Your task to perform on an android device: Go to network settings Image 0: 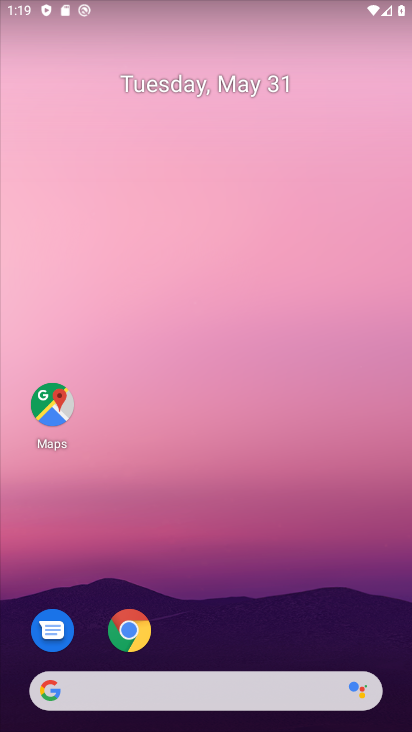
Step 0: drag from (280, 539) to (155, 18)
Your task to perform on an android device: Go to network settings Image 1: 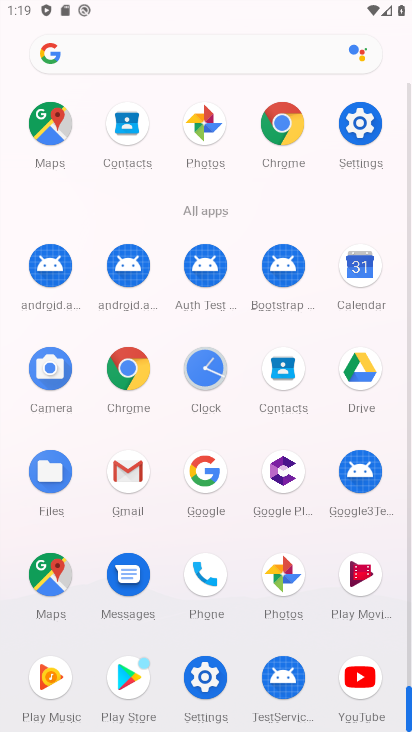
Step 1: drag from (3, 557) to (14, 201)
Your task to perform on an android device: Go to network settings Image 2: 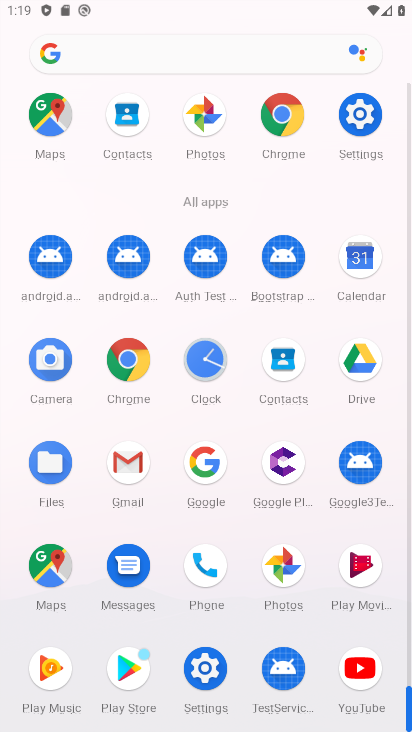
Step 2: click (201, 666)
Your task to perform on an android device: Go to network settings Image 3: 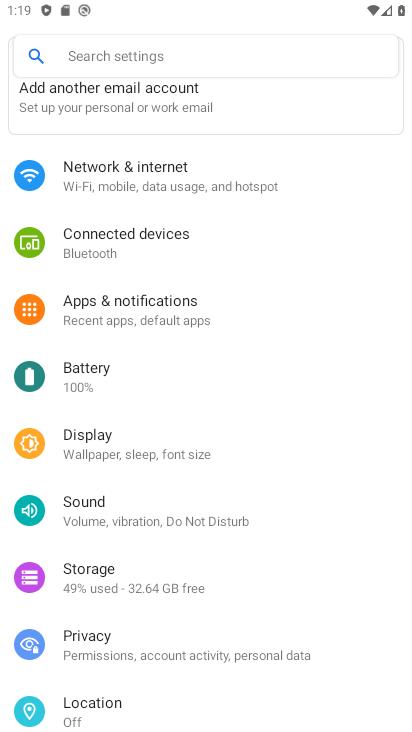
Step 3: drag from (274, 587) to (287, 175)
Your task to perform on an android device: Go to network settings Image 4: 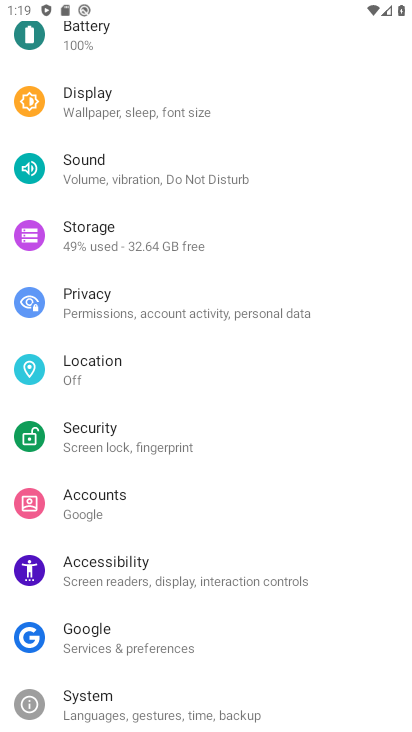
Step 4: drag from (237, 597) to (229, 211)
Your task to perform on an android device: Go to network settings Image 5: 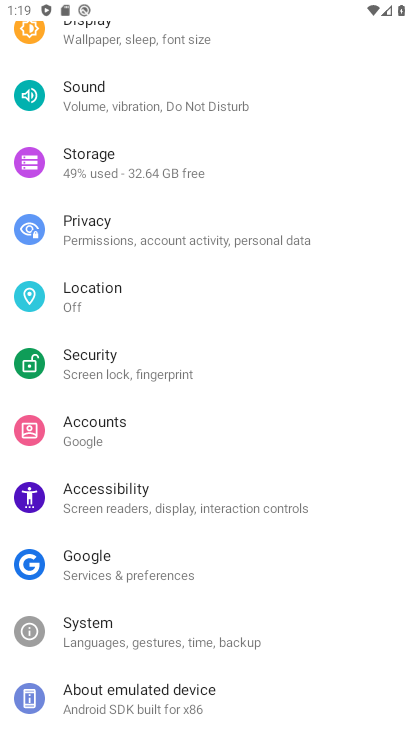
Step 5: drag from (239, 181) to (242, 637)
Your task to perform on an android device: Go to network settings Image 6: 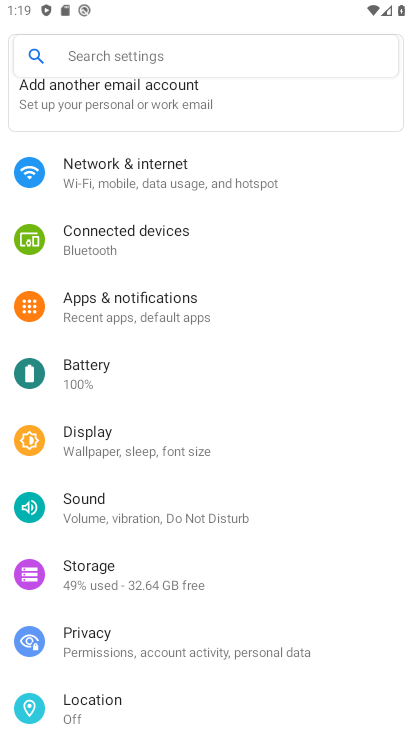
Step 6: click (165, 160)
Your task to perform on an android device: Go to network settings Image 7: 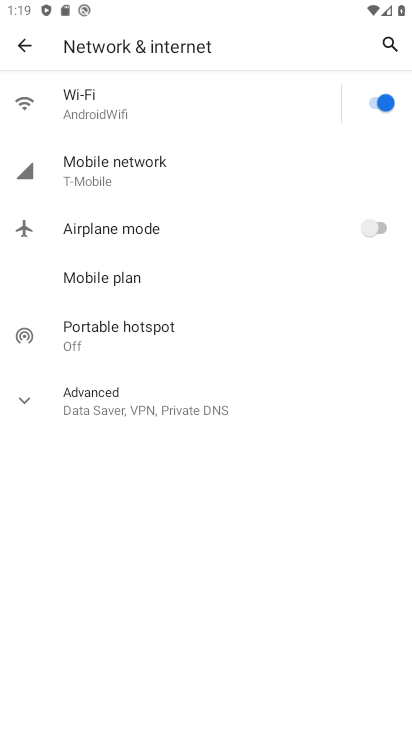
Step 7: click (37, 414)
Your task to perform on an android device: Go to network settings Image 8: 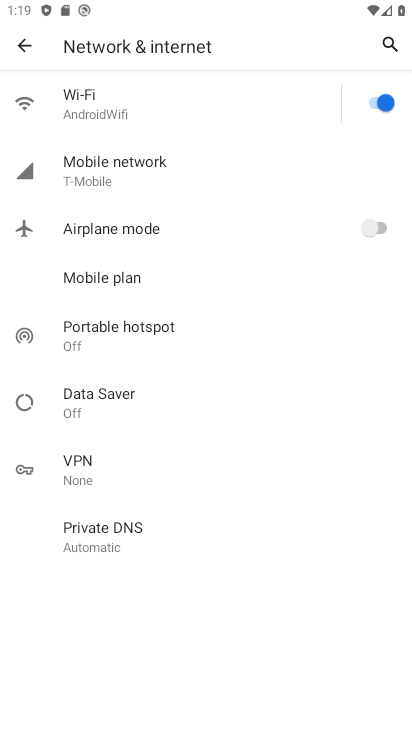
Step 8: click (174, 161)
Your task to perform on an android device: Go to network settings Image 9: 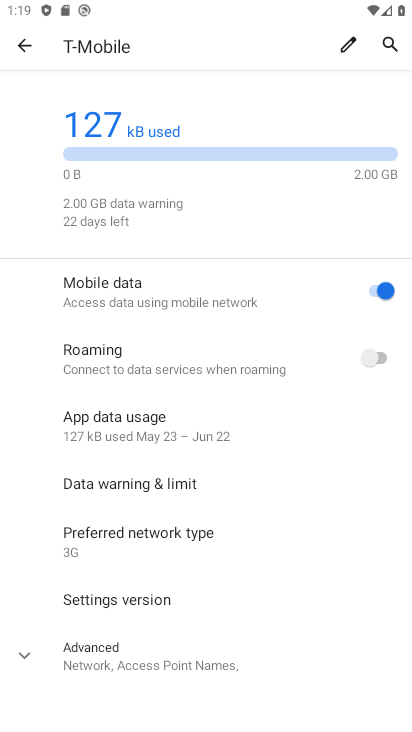
Step 9: drag from (223, 575) to (223, 161)
Your task to perform on an android device: Go to network settings Image 10: 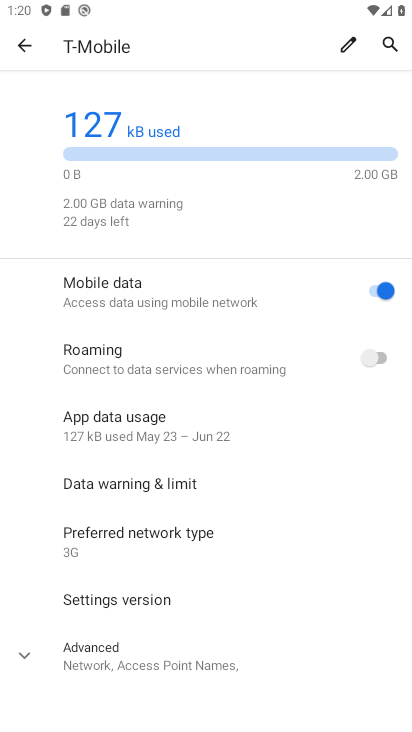
Step 10: click (25, 623)
Your task to perform on an android device: Go to network settings Image 11: 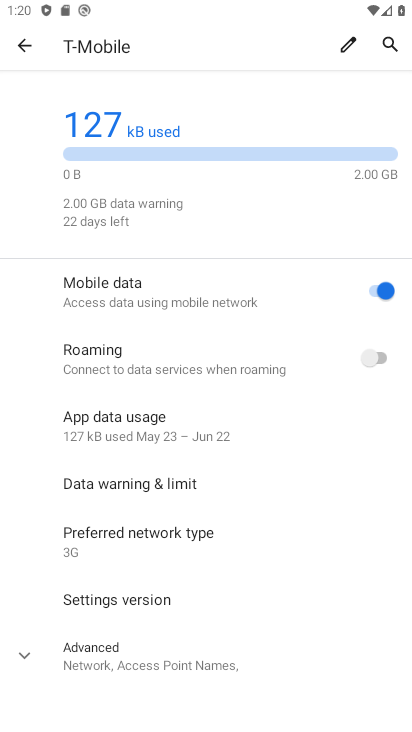
Step 11: click (30, 661)
Your task to perform on an android device: Go to network settings Image 12: 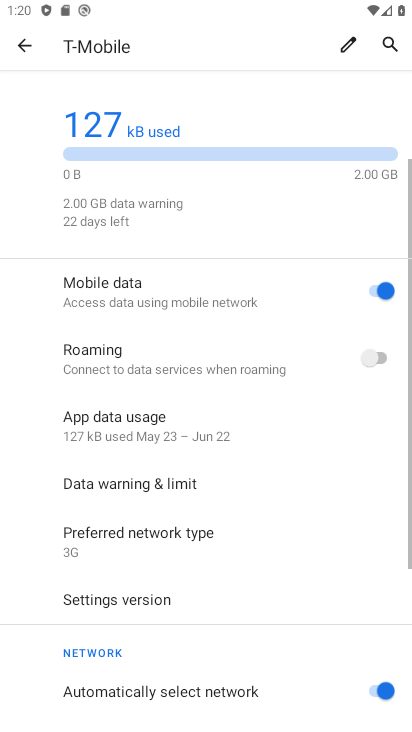
Step 12: drag from (252, 482) to (247, 140)
Your task to perform on an android device: Go to network settings Image 13: 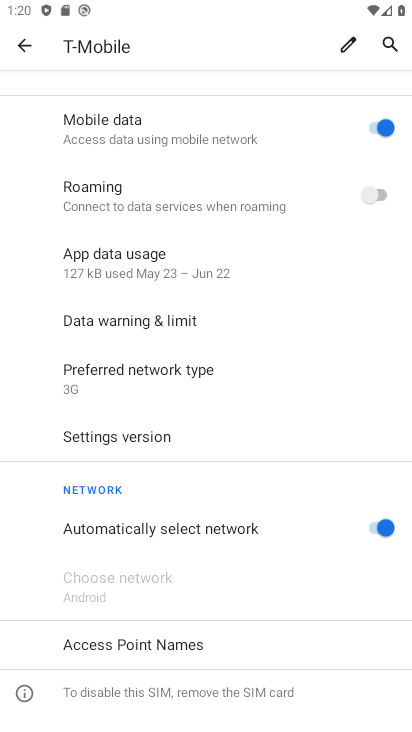
Step 13: drag from (221, 590) to (224, 183)
Your task to perform on an android device: Go to network settings Image 14: 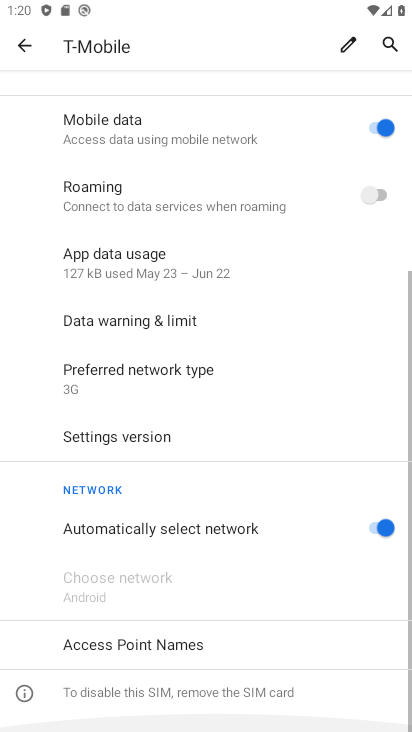
Step 14: drag from (228, 172) to (199, 608)
Your task to perform on an android device: Go to network settings Image 15: 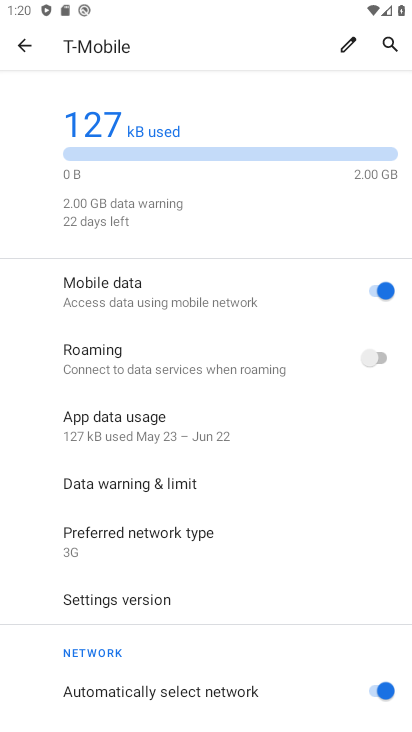
Step 15: click (29, 44)
Your task to perform on an android device: Go to network settings Image 16: 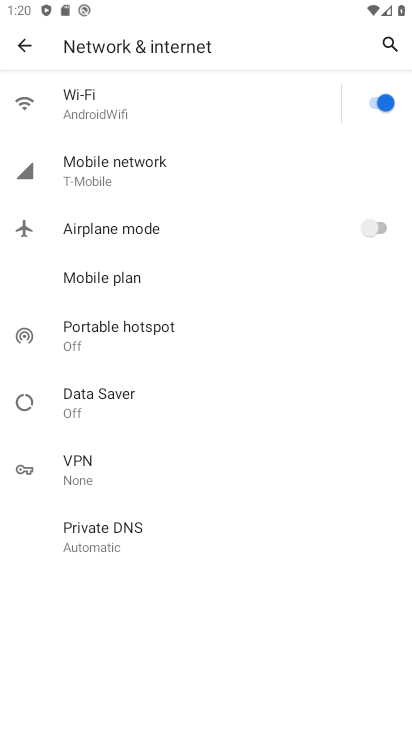
Step 16: task complete